Your task to perform on an android device: Go to battery settings Image 0: 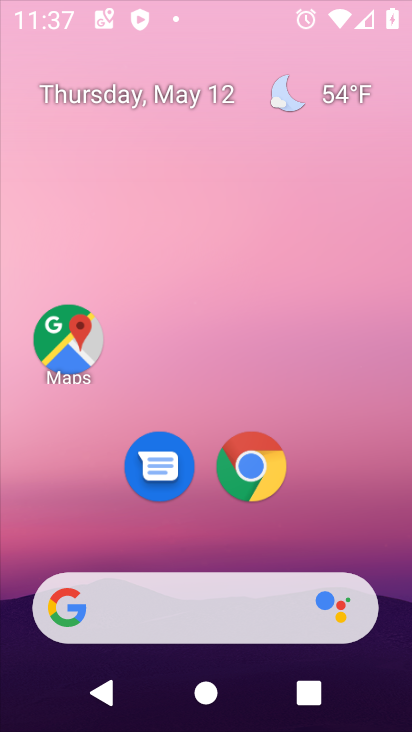
Step 0: click (363, 132)
Your task to perform on an android device: Go to battery settings Image 1: 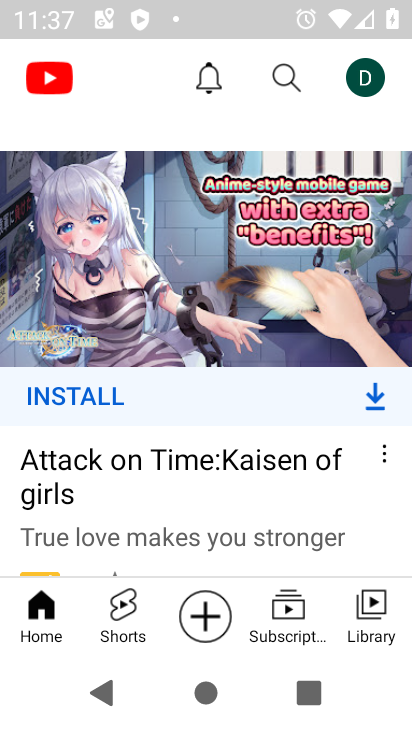
Step 1: press home button
Your task to perform on an android device: Go to battery settings Image 2: 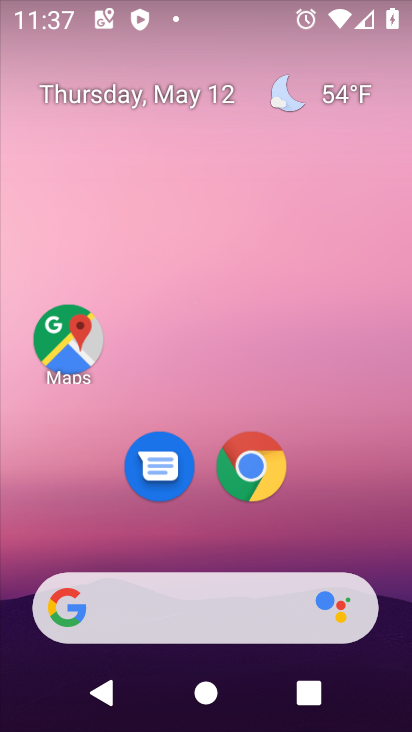
Step 2: drag from (359, 517) to (377, 139)
Your task to perform on an android device: Go to battery settings Image 3: 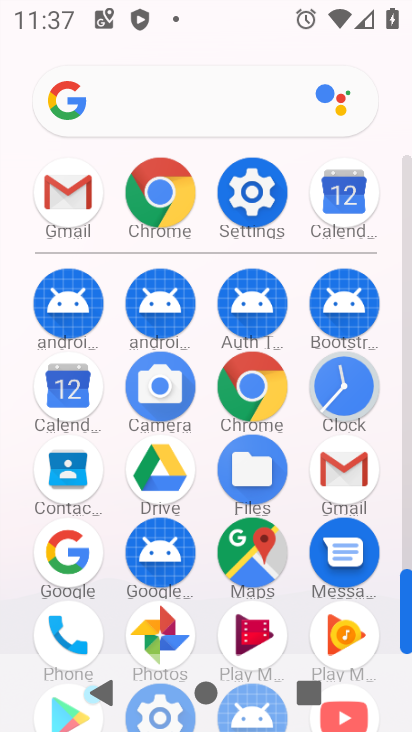
Step 3: click (271, 213)
Your task to perform on an android device: Go to battery settings Image 4: 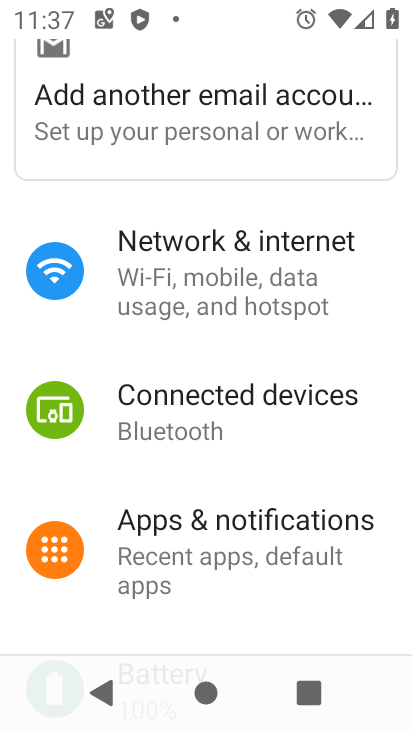
Step 4: drag from (220, 483) to (265, 208)
Your task to perform on an android device: Go to battery settings Image 5: 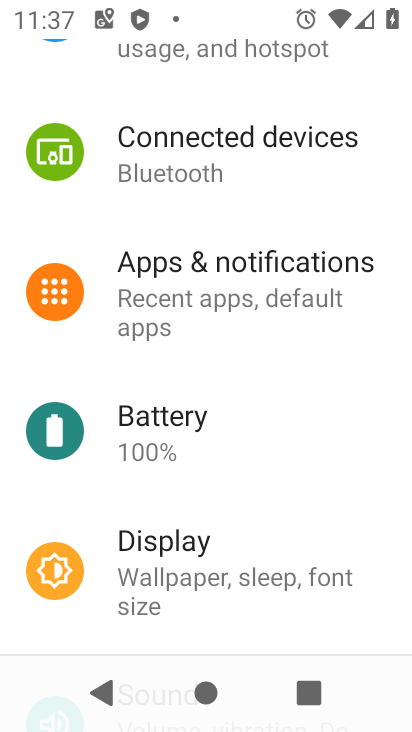
Step 5: click (236, 418)
Your task to perform on an android device: Go to battery settings Image 6: 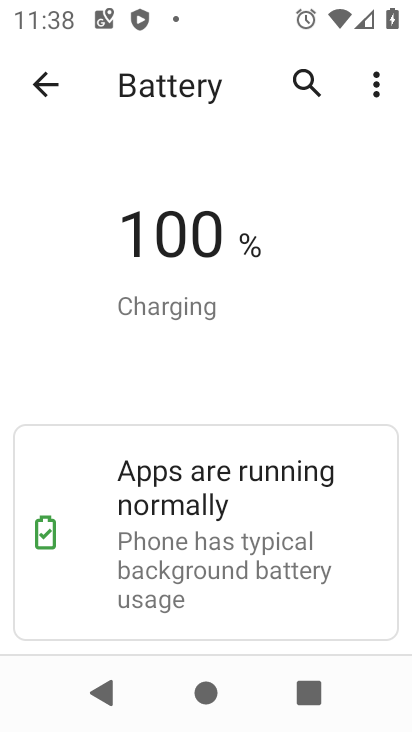
Step 6: task complete